Your task to perform on an android device: install app "Messages" Image 0: 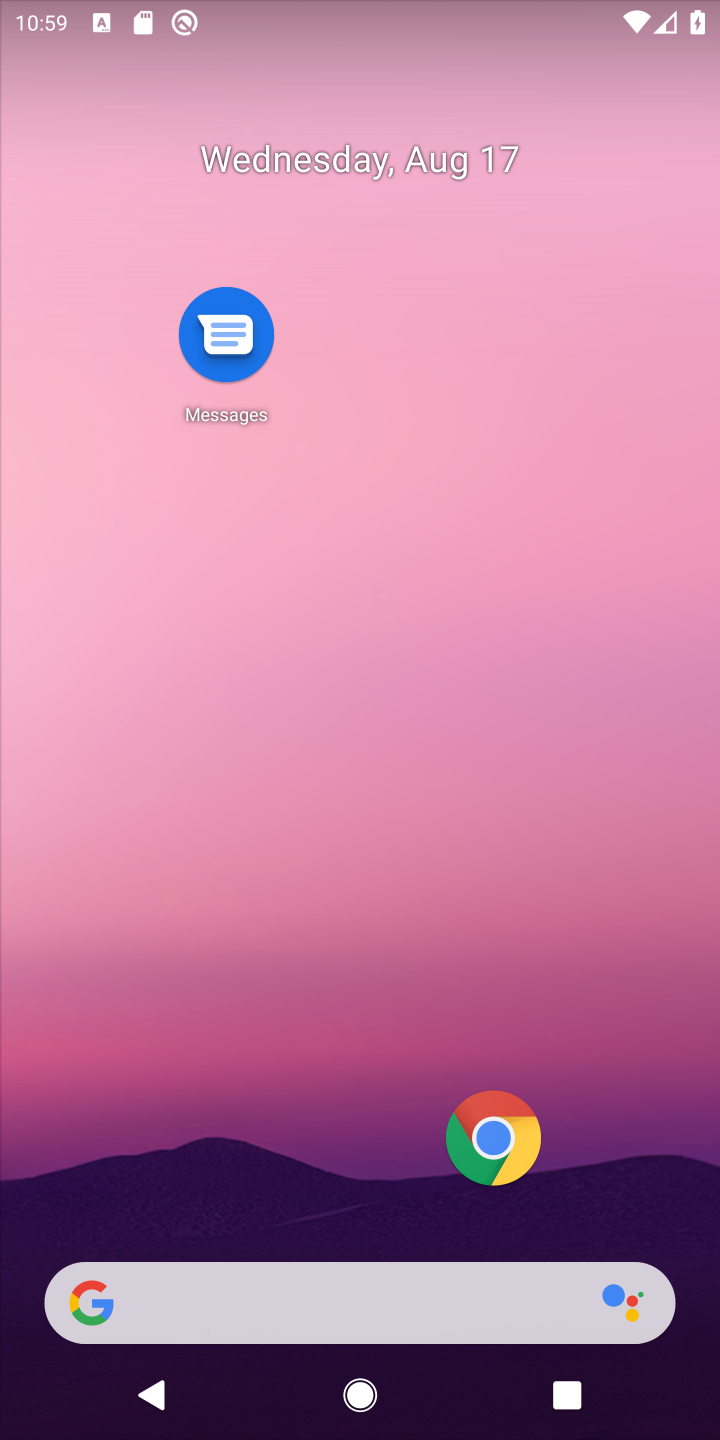
Step 0: drag from (113, 1146) to (188, 603)
Your task to perform on an android device: install app "Messages" Image 1: 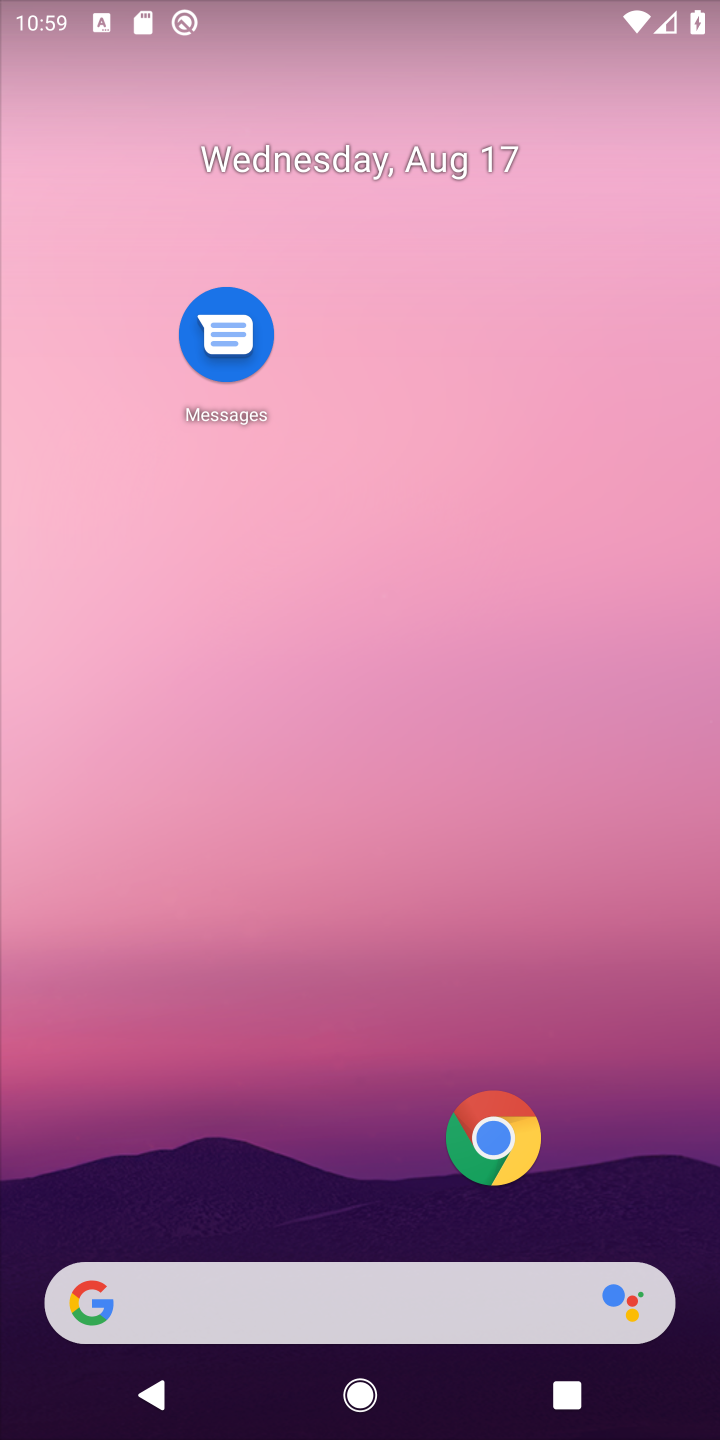
Step 1: drag from (312, 1135) to (338, 258)
Your task to perform on an android device: install app "Messages" Image 2: 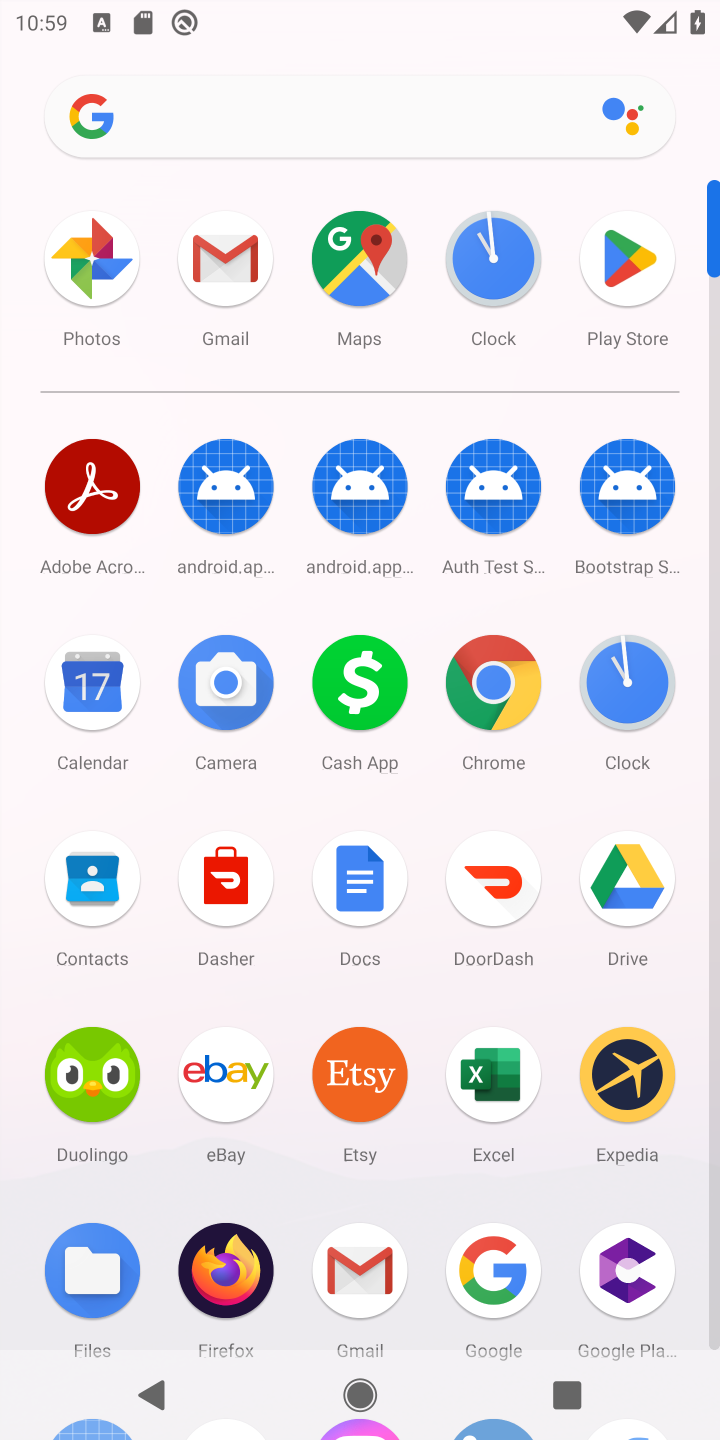
Step 2: click (600, 270)
Your task to perform on an android device: install app "Messages" Image 3: 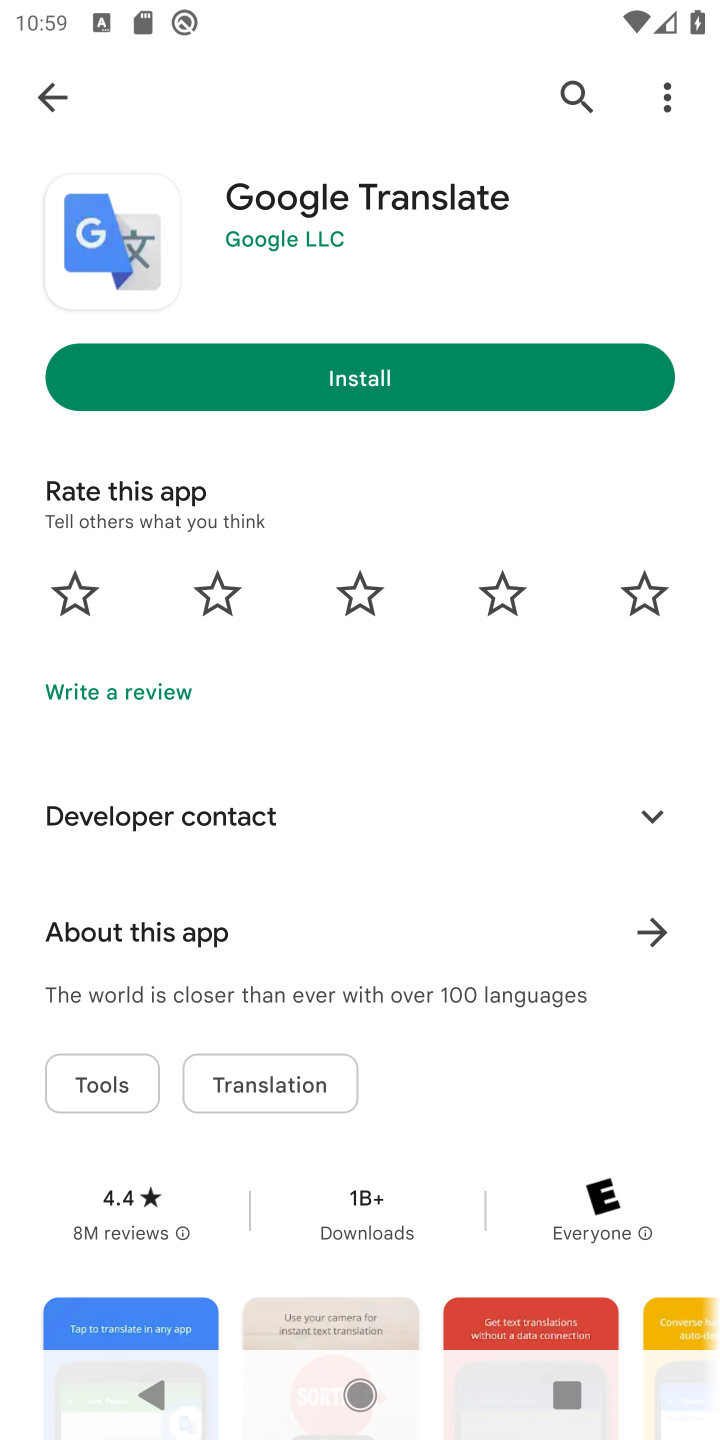
Step 3: click (56, 75)
Your task to perform on an android device: install app "Messages" Image 4: 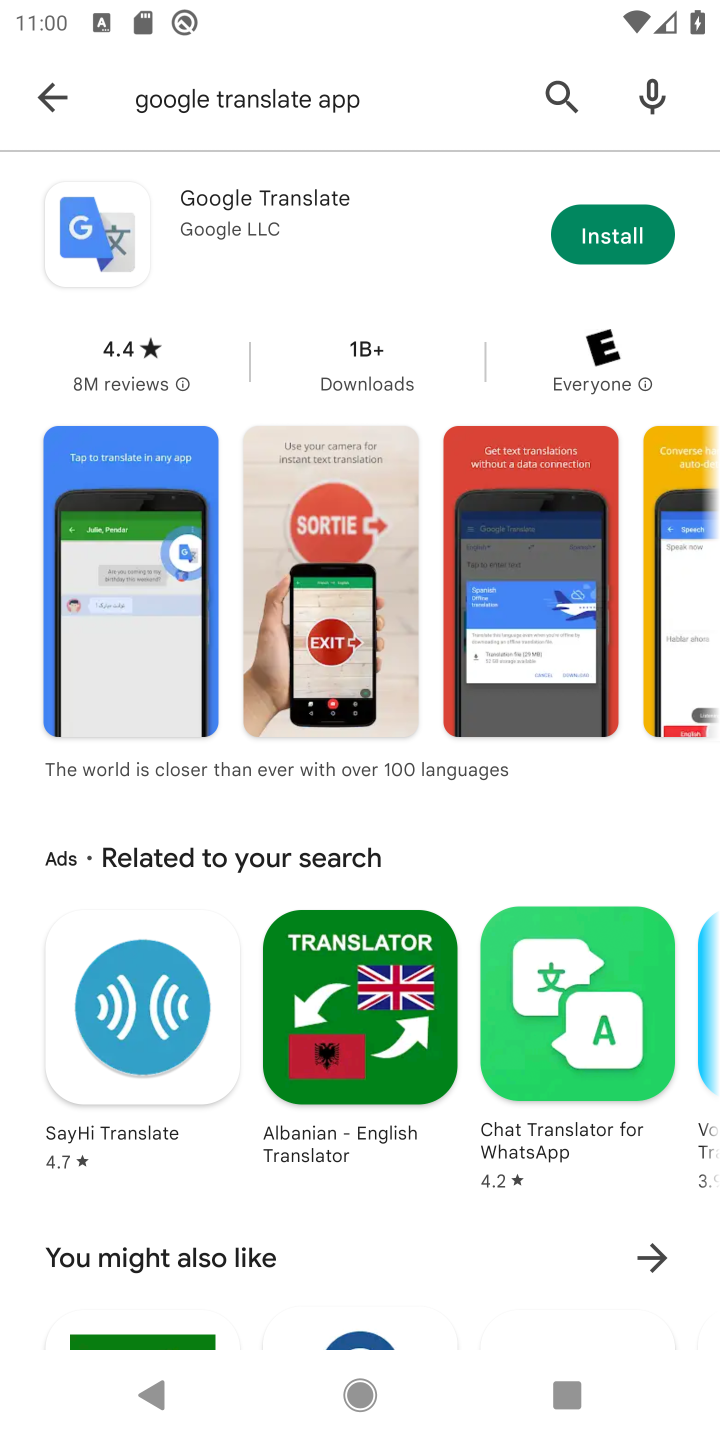
Step 4: click (570, 93)
Your task to perform on an android device: install app "Messages" Image 5: 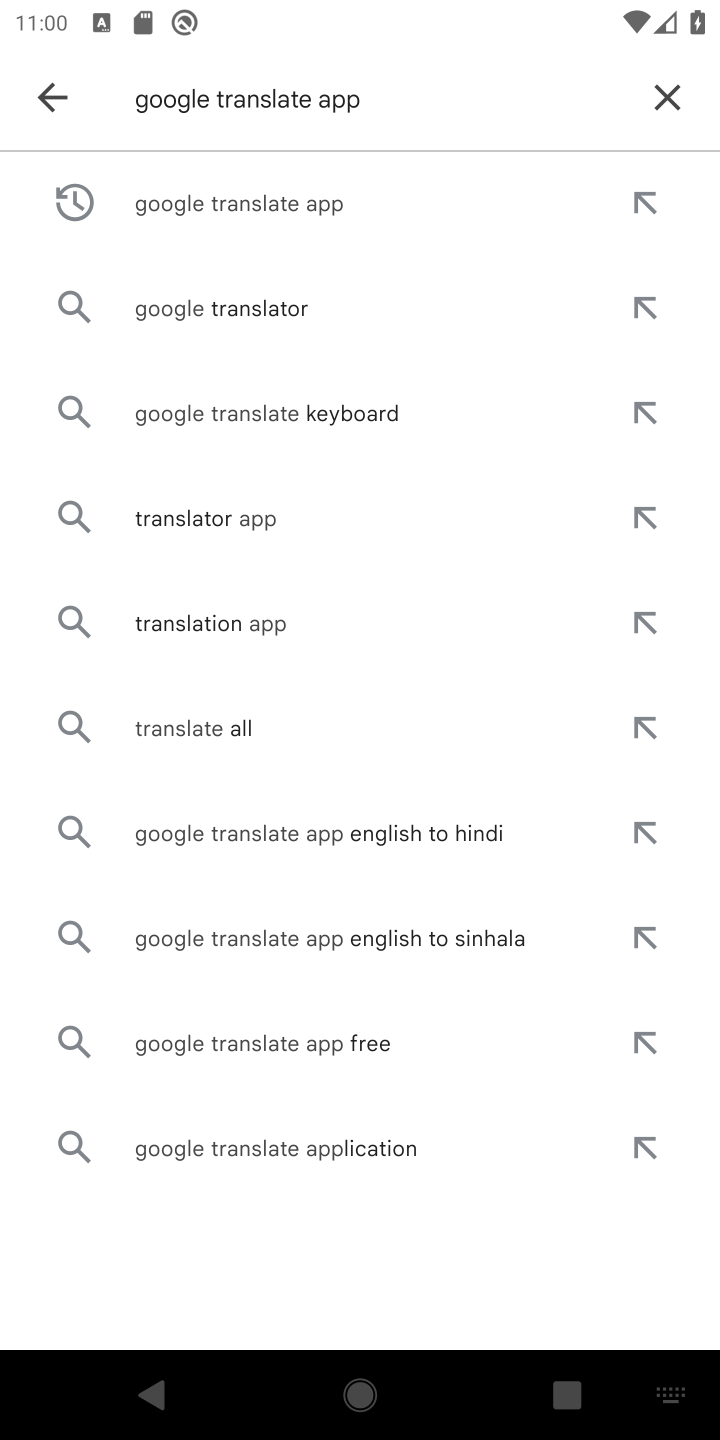
Step 5: click (658, 85)
Your task to perform on an android device: install app "Messages" Image 6: 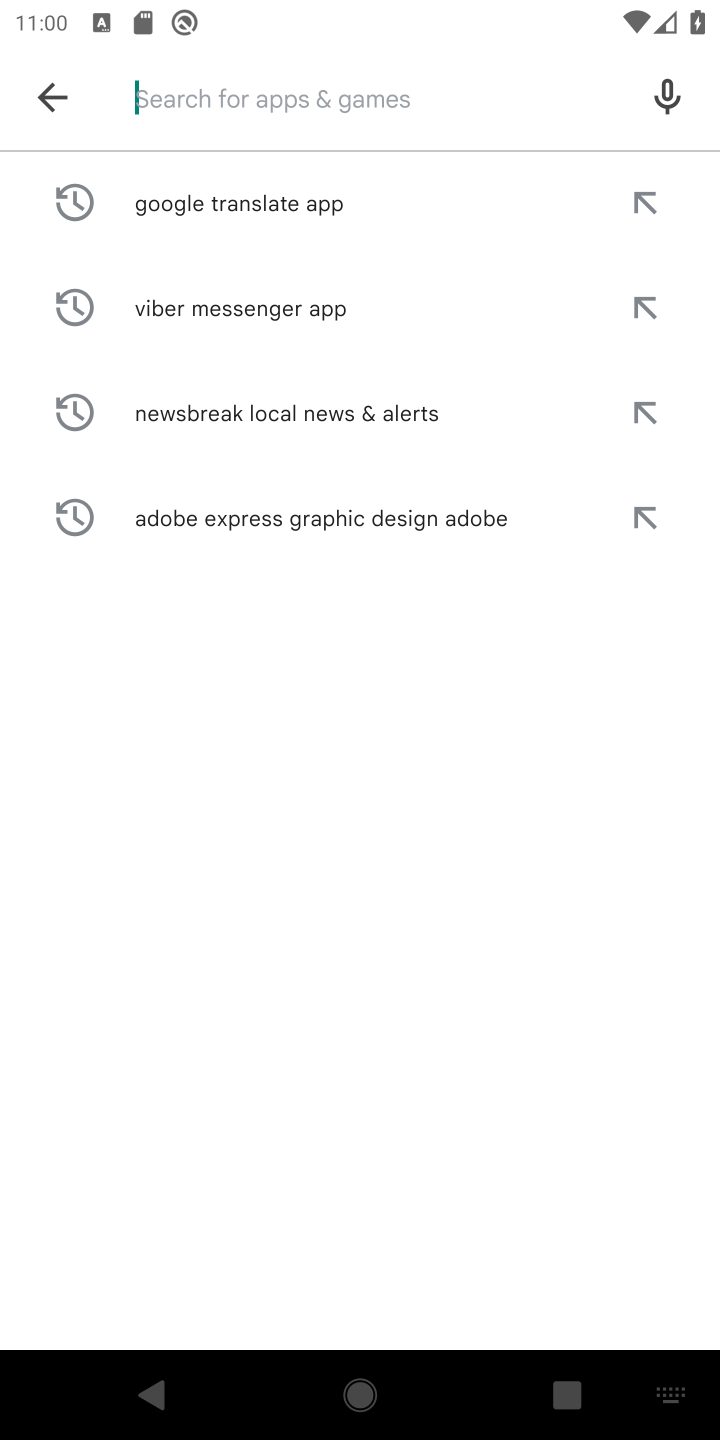
Step 6: click (502, 98)
Your task to perform on an android device: install app "Messages" Image 7: 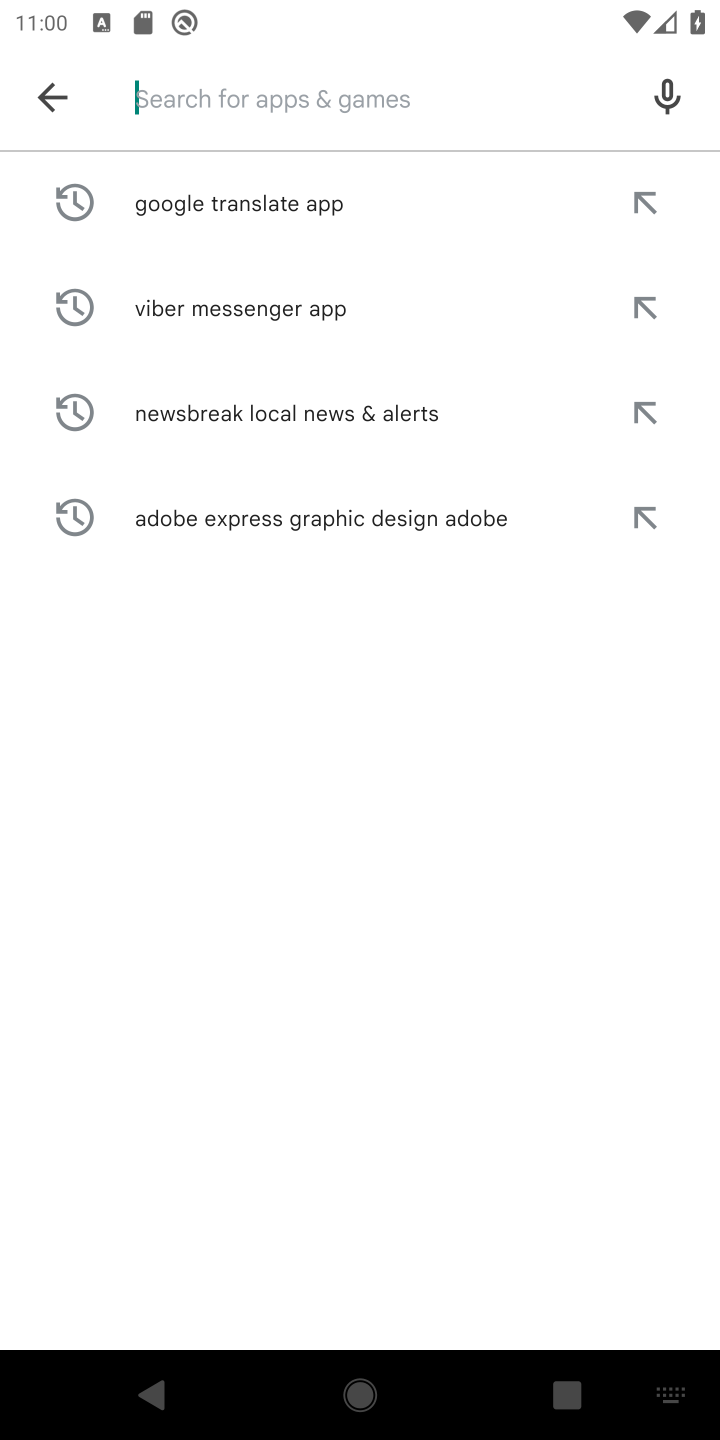
Step 7: type "messages "
Your task to perform on an android device: install app "Messages" Image 8: 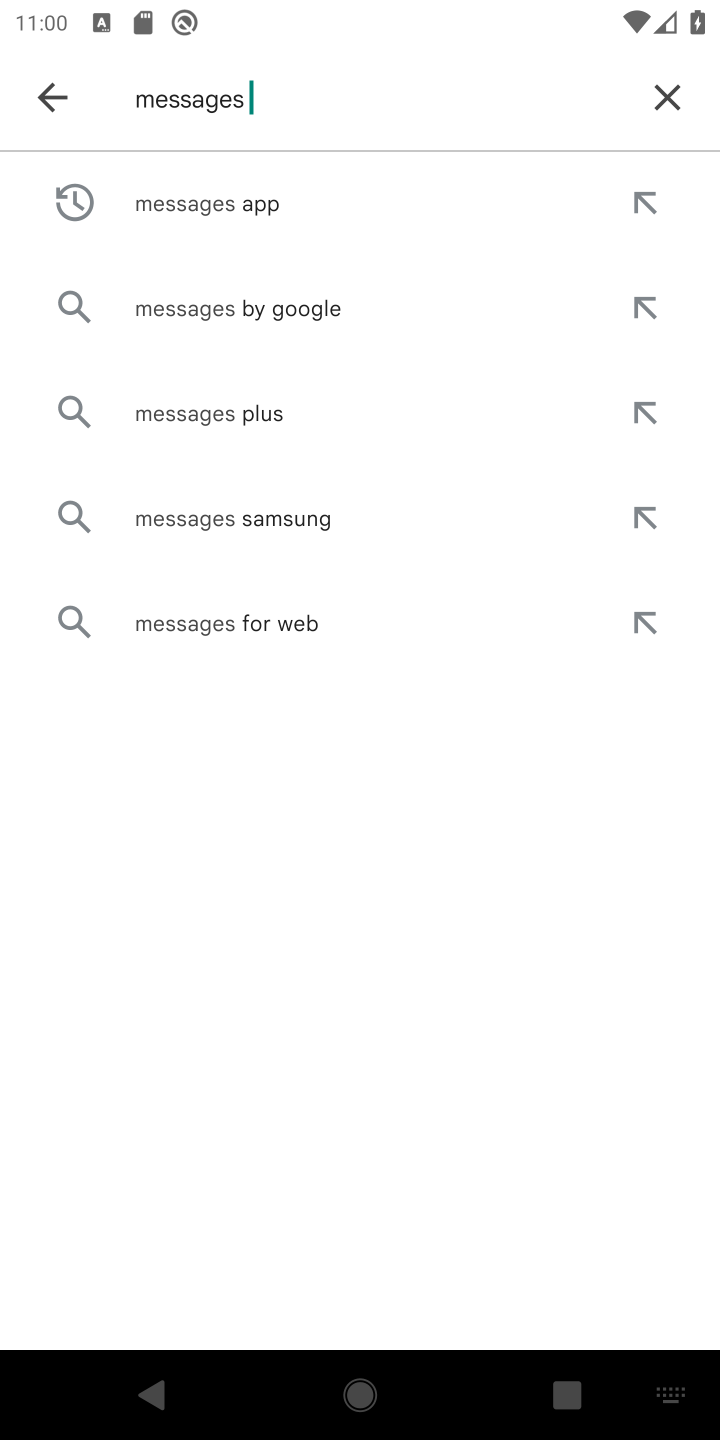
Step 8: click (229, 204)
Your task to perform on an android device: install app "Messages" Image 9: 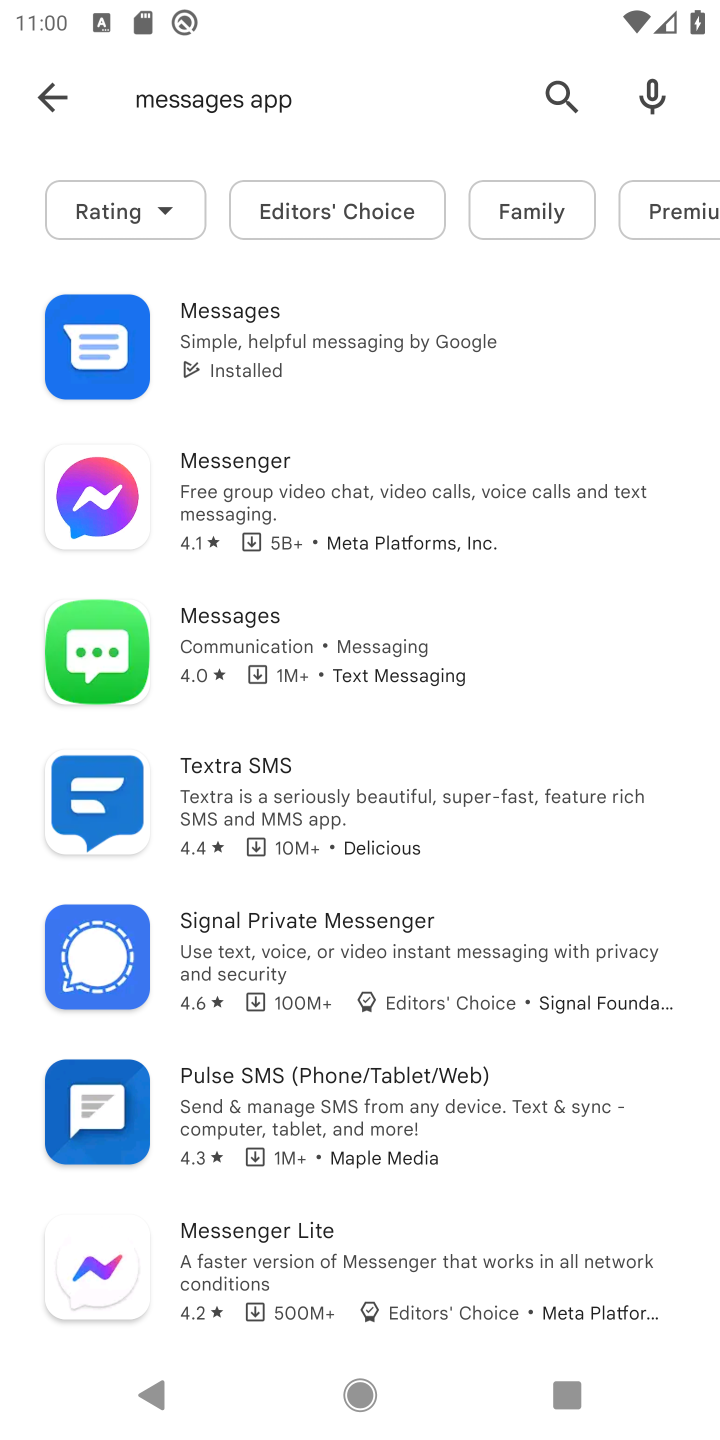
Step 9: click (312, 464)
Your task to perform on an android device: install app "Messages" Image 10: 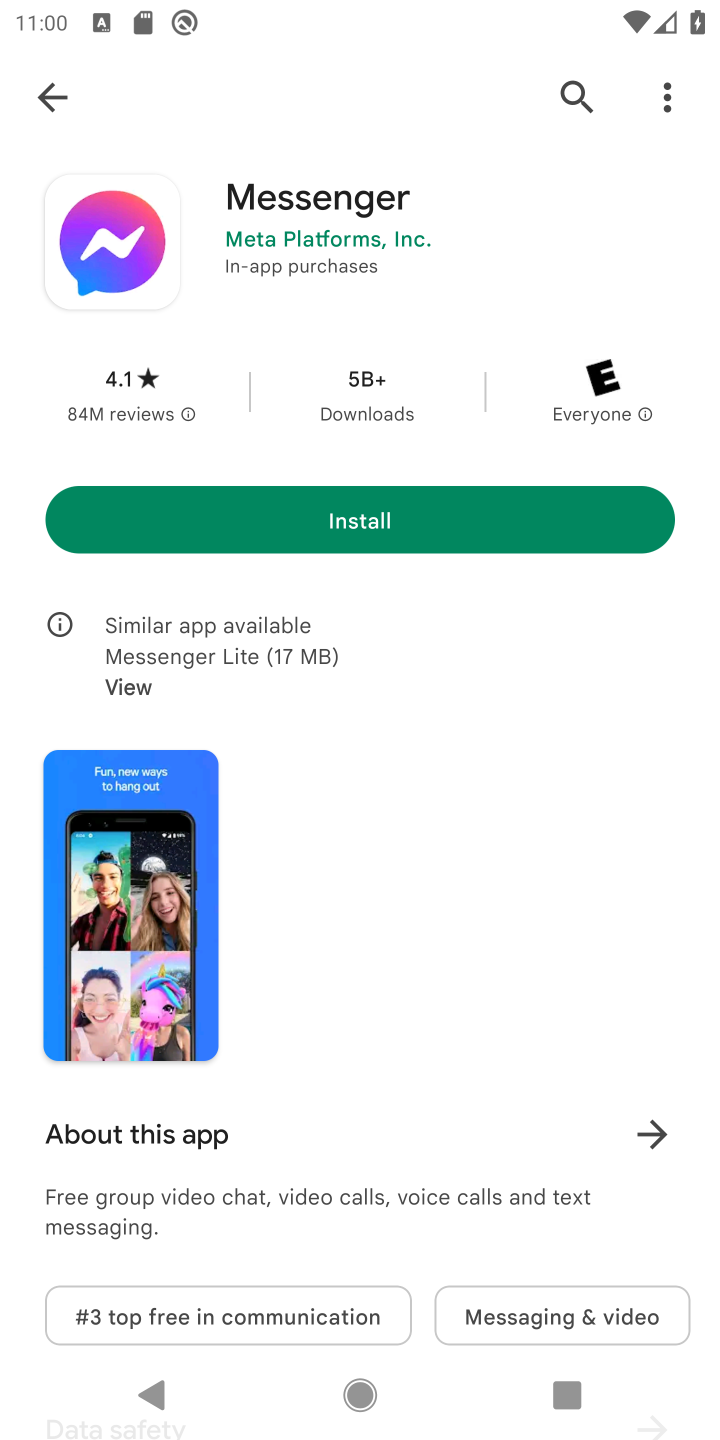
Step 10: click (275, 354)
Your task to perform on an android device: install app "Messages" Image 11: 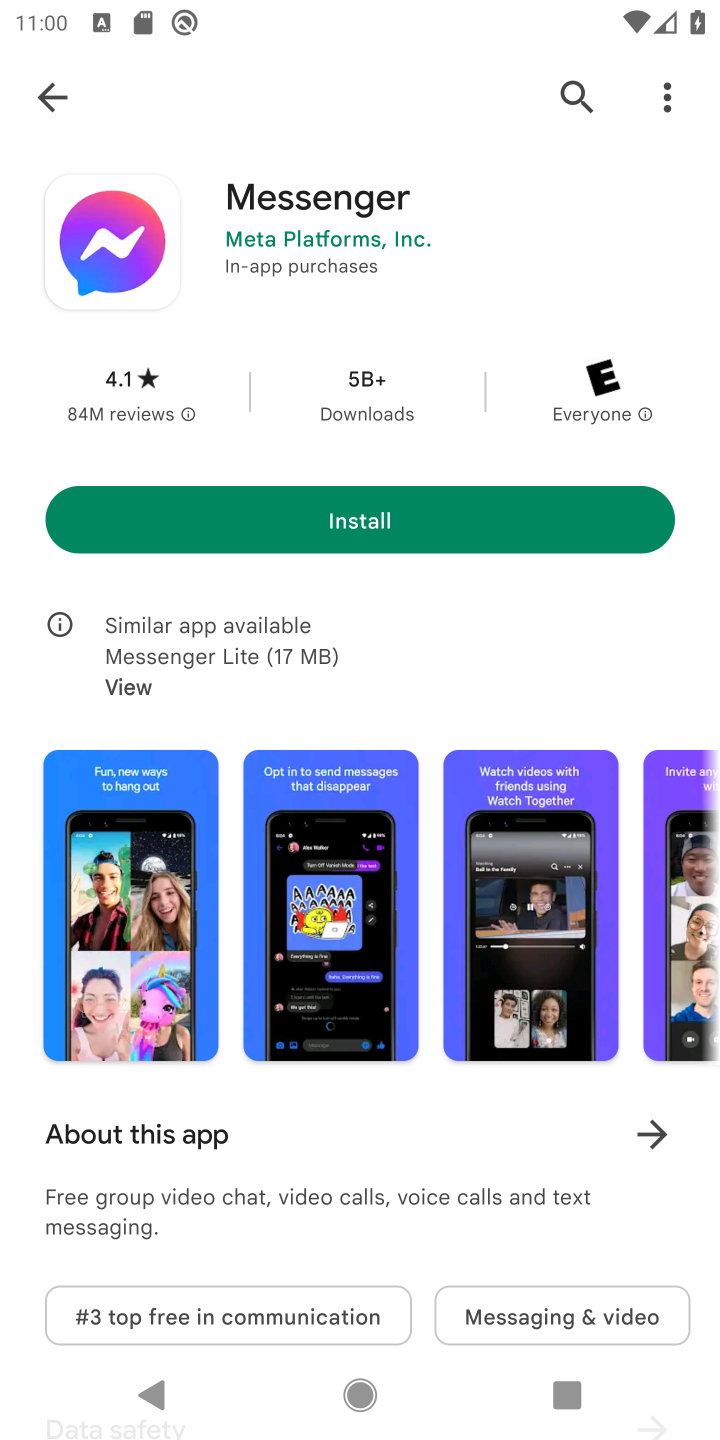
Step 11: click (37, 68)
Your task to perform on an android device: install app "Messages" Image 12: 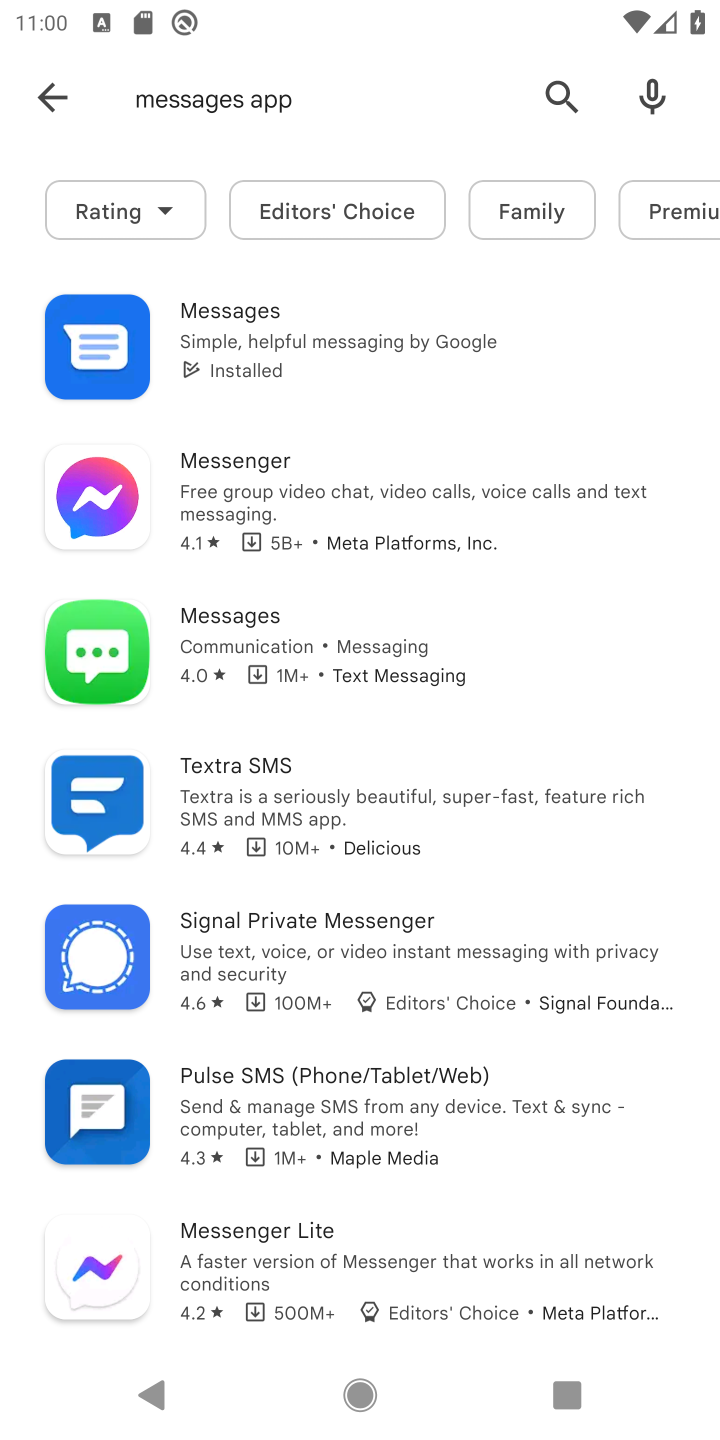
Step 12: click (203, 333)
Your task to perform on an android device: install app "Messages" Image 13: 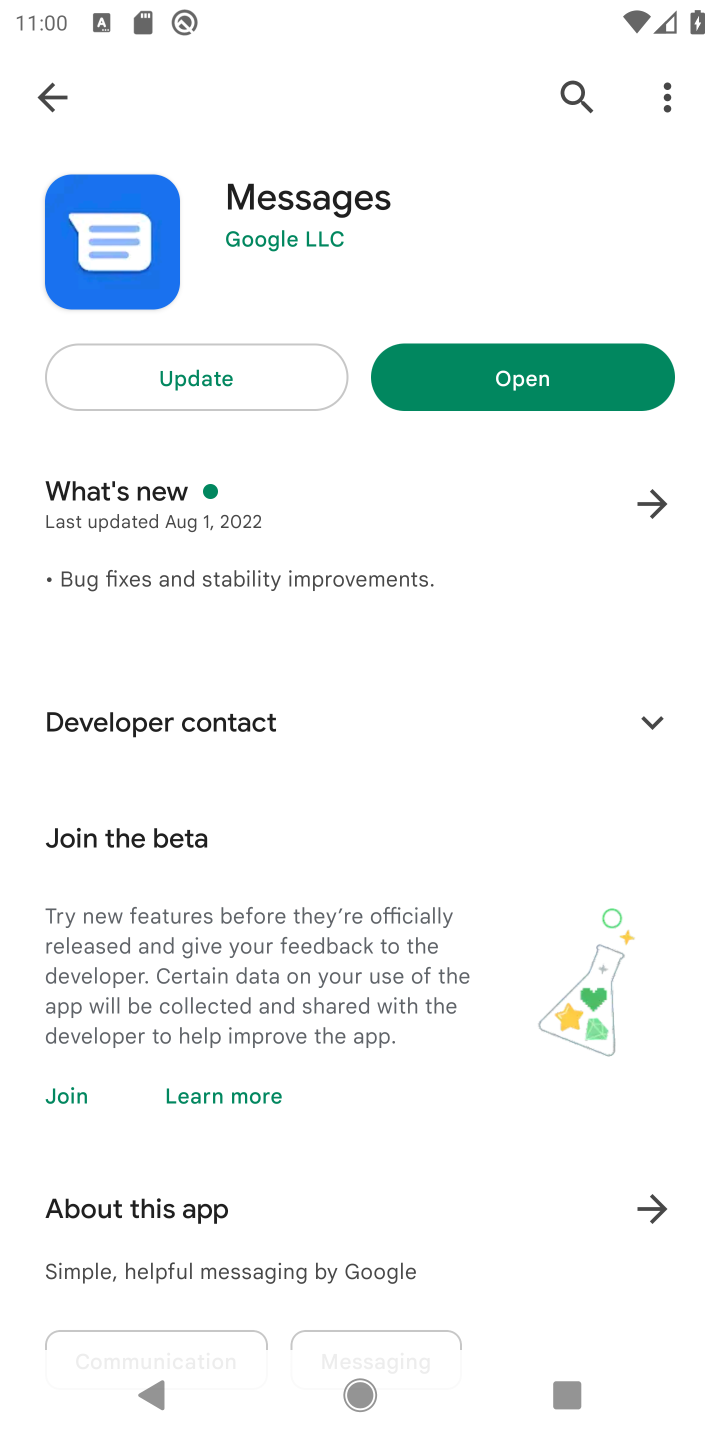
Step 13: click (488, 383)
Your task to perform on an android device: install app "Messages" Image 14: 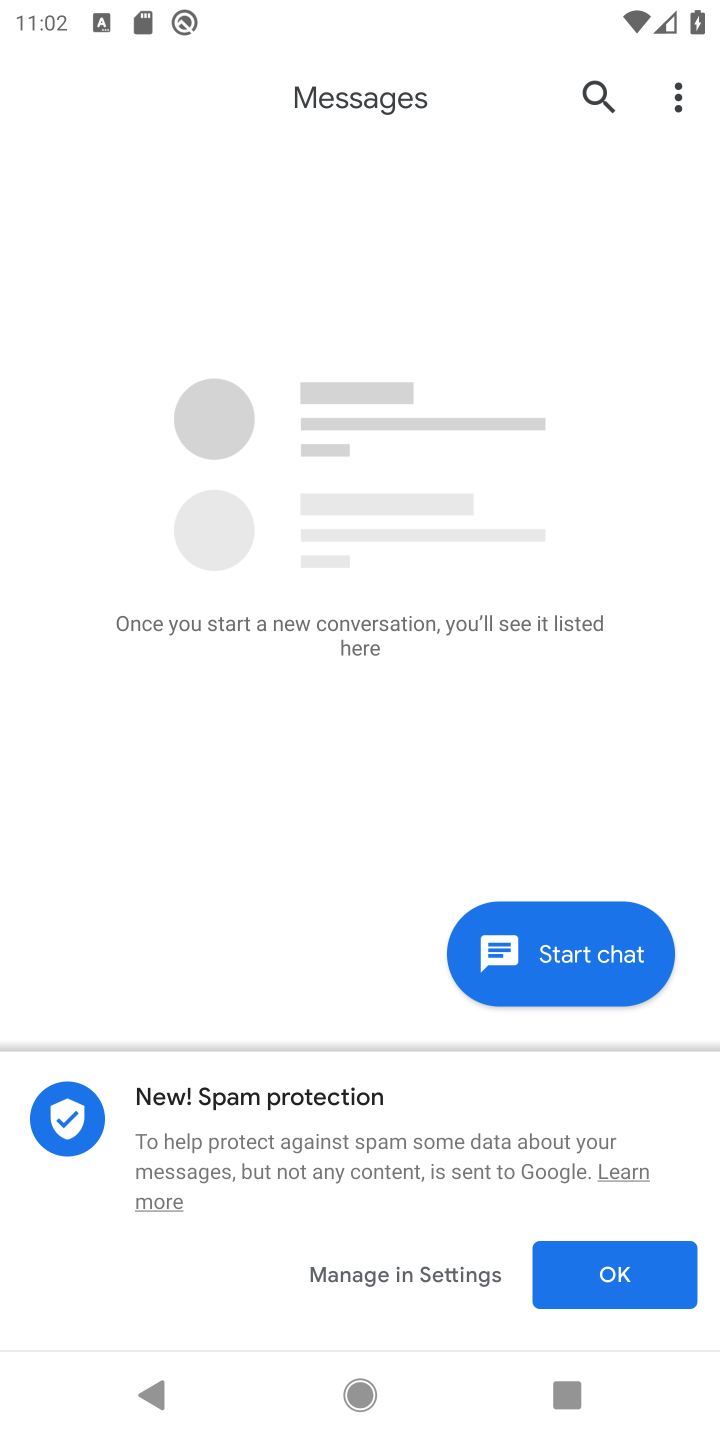
Step 14: task complete